Your task to perform on an android device: Go to internet settings Image 0: 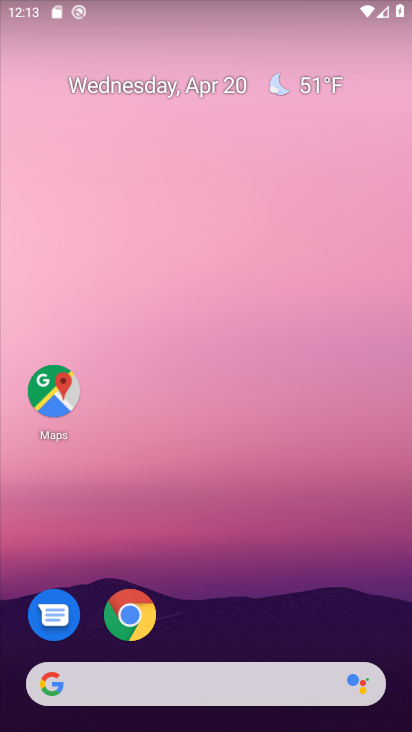
Step 0: drag from (155, 682) to (384, 11)
Your task to perform on an android device: Go to internet settings Image 1: 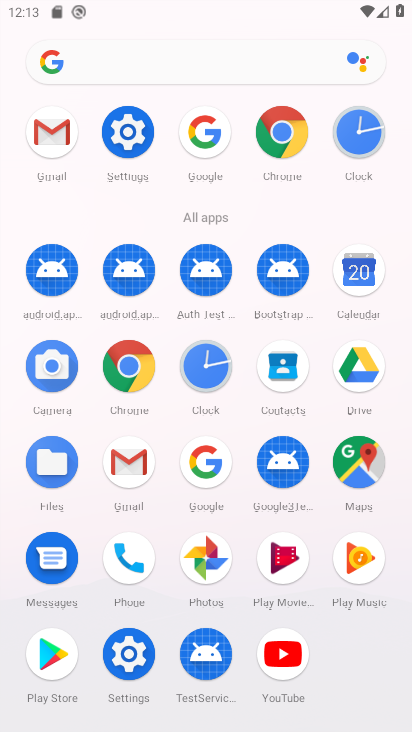
Step 1: click (117, 145)
Your task to perform on an android device: Go to internet settings Image 2: 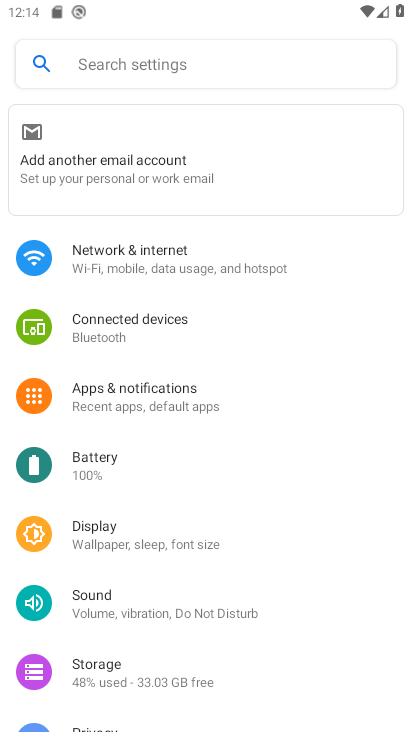
Step 2: click (192, 272)
Your task to perform on an android device: Go to internet settings Image 3: 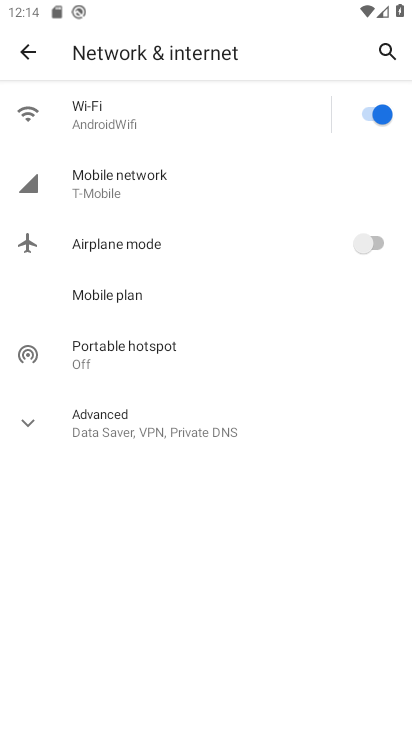
Step 3: task complete